Your task to perform on an android device: add a label to a message in the gmail app Image 0: 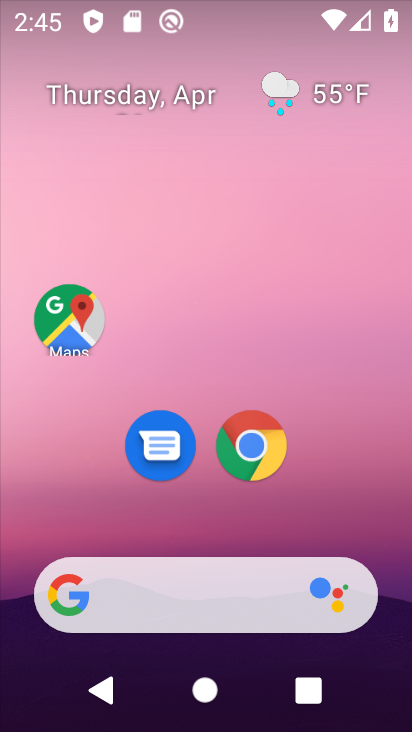
Step 0: drag from (220, 717) to (201, 47)
Your task to perform on an android device: add a label to a message in the gmail app Image 1: 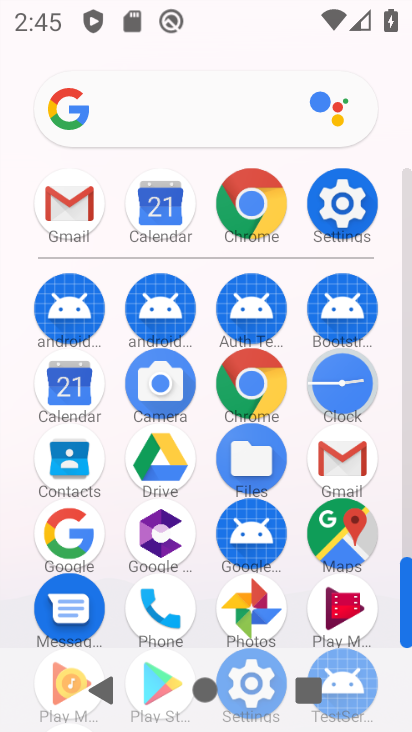
Step 1: click (338, 458)
Your task to perform on an android device: add a label to a message in the gmail app Image 2: 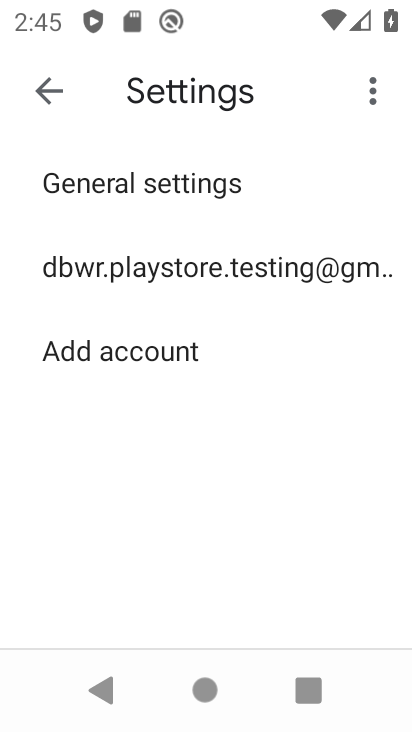
Step 2: click (245, 269)
Your task to perform on an android device: add a label to a message in the gmail app Image 3: 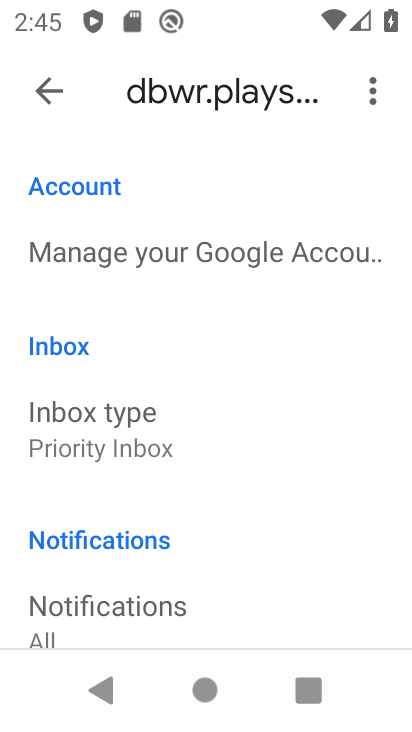
Step 3: click (47, 84)
Your task to perform on an android device: add a label to a message in the gmail app Image 4: 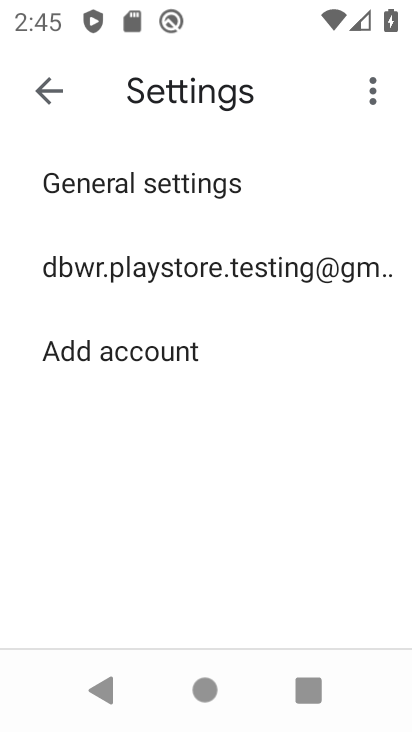
Step 4: click (47, 84)
Your task to perform on an android device: add a label to a message in the gmail app Image 5: 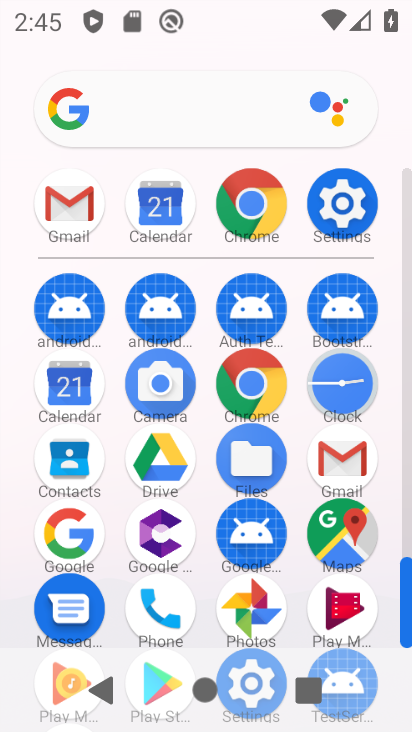
Step 5: click (65, 203)
Your task to perform on an android device: add a label to a message in the gmail app Image 6: 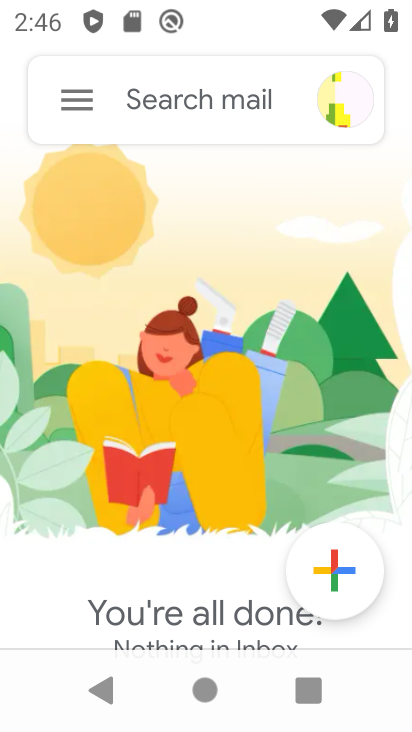
Step 6: task complete